Your task to perform on an android device: turn vacation reply on in the gmail app Image 0: 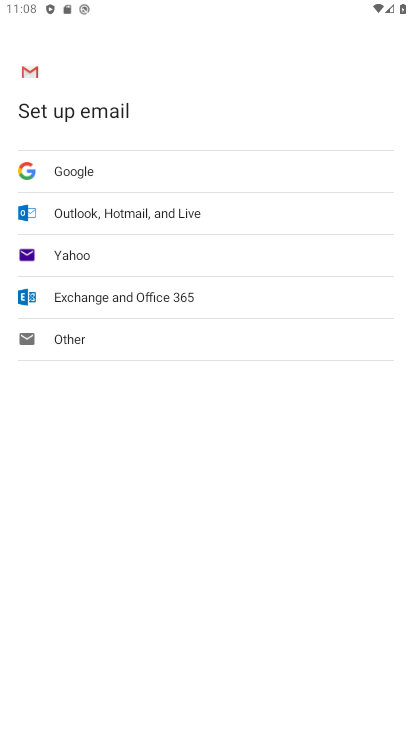
Step 0: press home button
Your task to perform on an android device: turn vacation reply on in the gmail app Image 1: 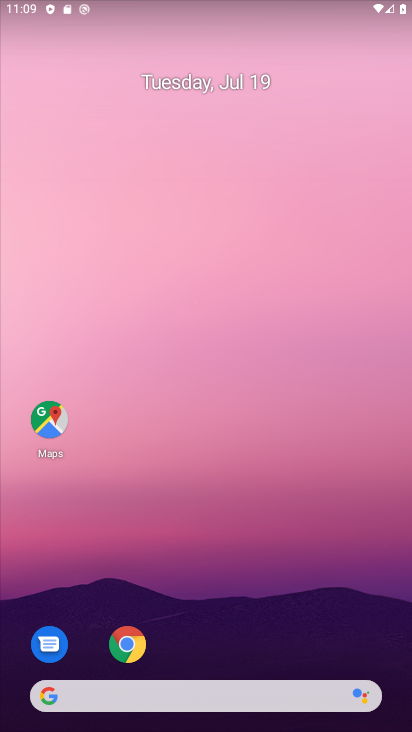
Step 1: drag from (236, 624) to (287, 19)
Your task to perform on an android device: turn vacation reply on in the gmail app Image 2: 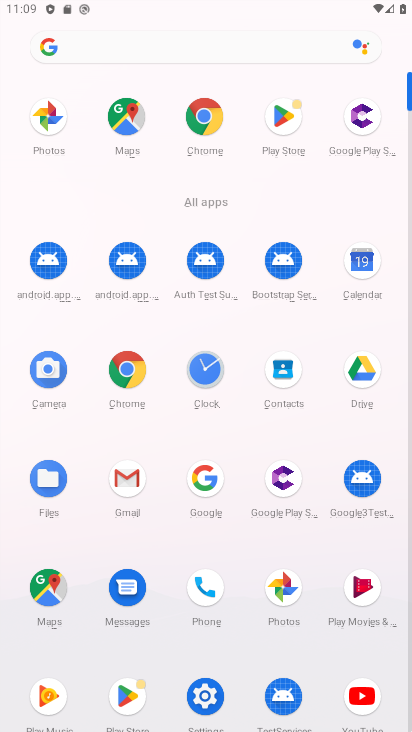
Step 2: click (138, 482)
Your task to perform on an android device: turn vacation reply on in the gmail app Image 3: 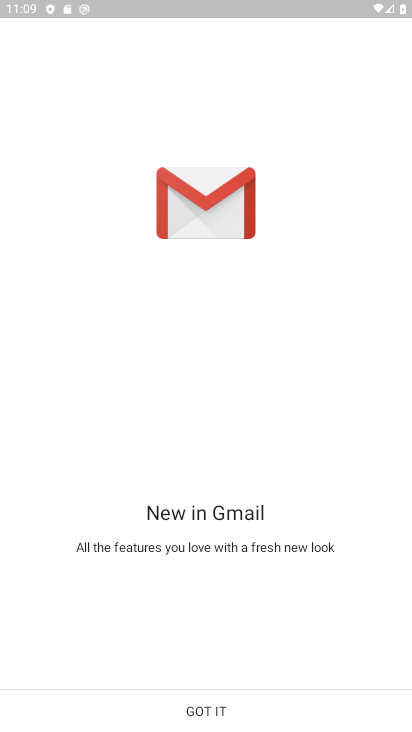
Step 3: click (188, 716)
Your task to perform on an android device: turn vacation reply on in the gmail app Image 4: 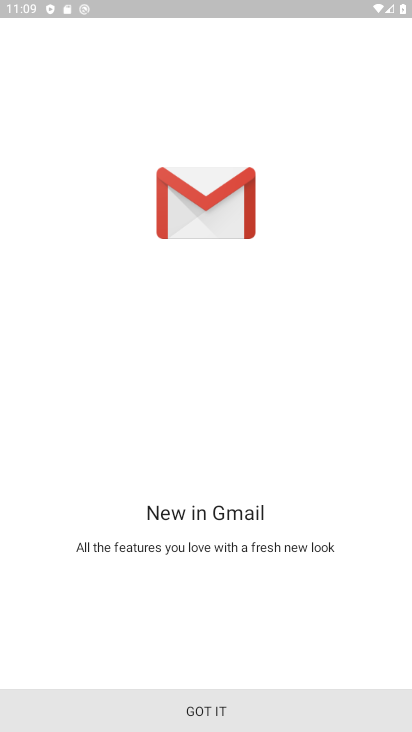
Step 4: click (188, 716)
Your task to perform on an android device: turn vacation reply on in the gmail app Image 5: 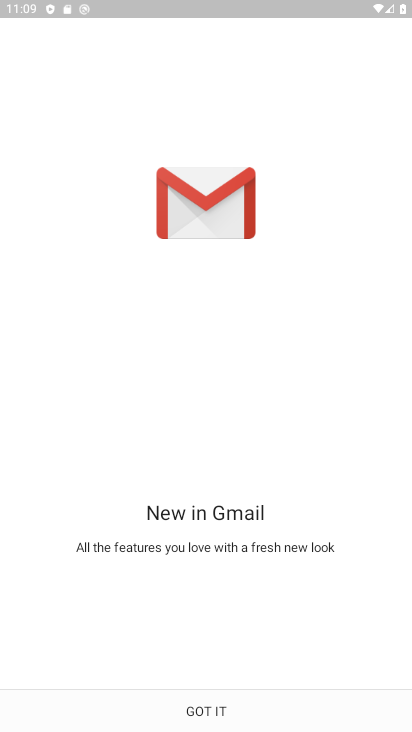
Step 5: click (188, 716)
Your task to perform on an android device: turn vacation reply on in the gmail app Image 6: 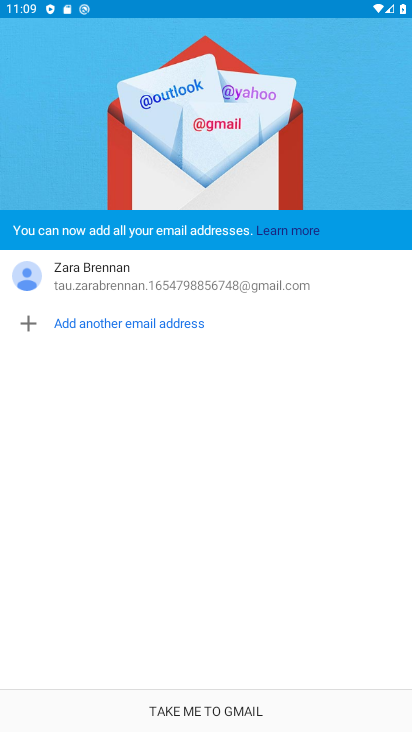
Step 6: click (192, 703)
Your task to perform on an android device: turn vacation reply on in the gmail app Image 7: 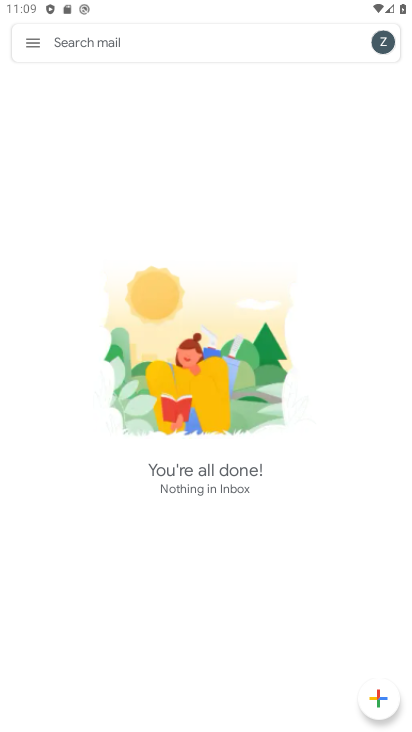
Step 7: click (36, 30)
Your task to perform on an android device: turn vacation reply on in the gmail app Image 8: 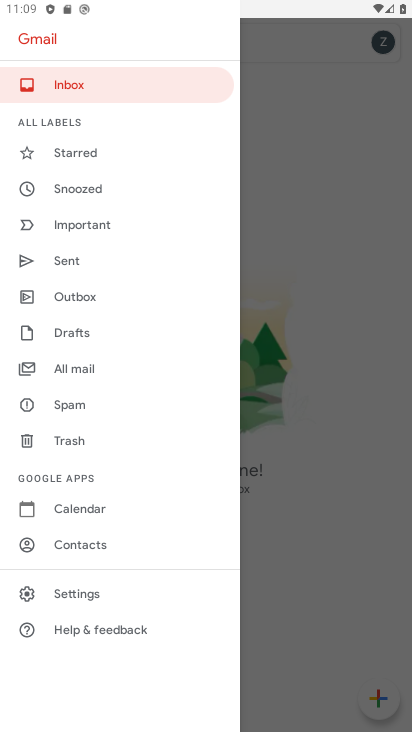
Step 8: click (44, 596)
Your task to perform on an android device: turn vacation reply on in the gmail app Image 9: 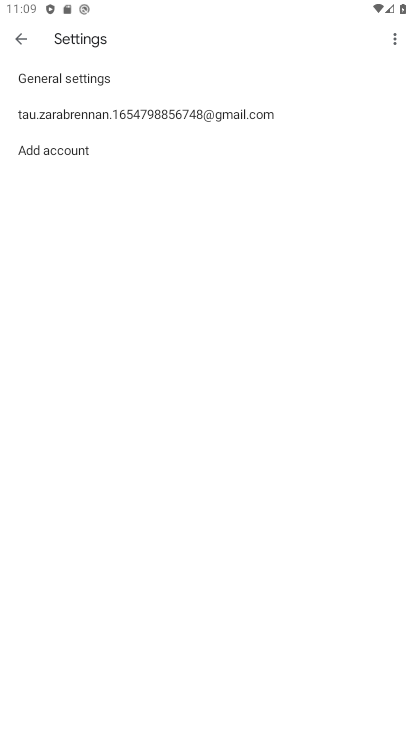
Step 9: click (58, 116)
Your task to perform on an android device: turn vacation reply on in the gmail app Image 10: 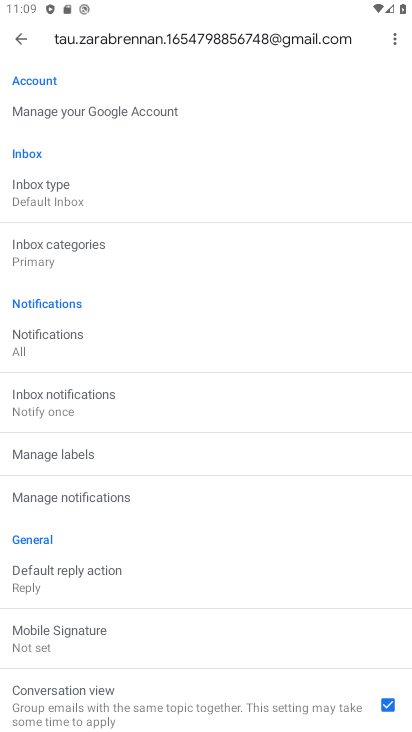
Step 10: drag from (96, 666) to (47, 217)
Your task to perform on an android device: turn vacation reply on in the gmail app Image 11: 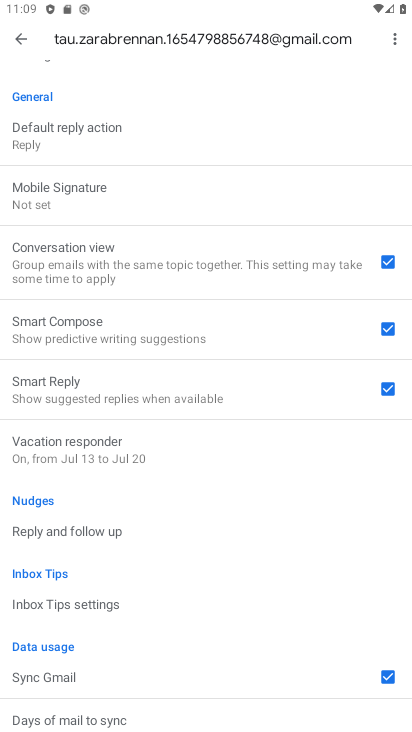
Step 11: click (94, 460)
Your task to perform on an android device: turn vacation reply on in the gmail app Image 12: 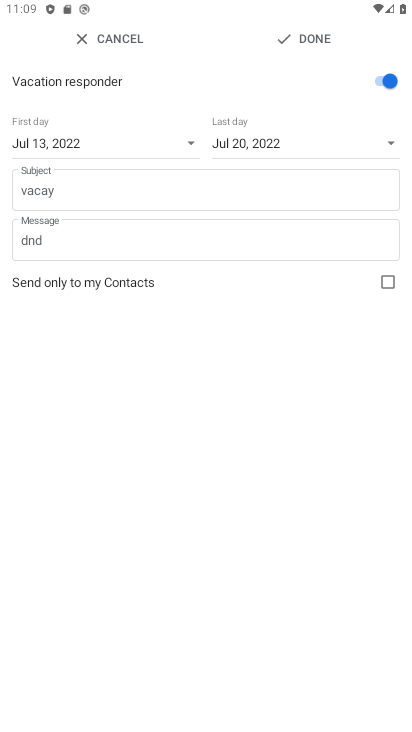
Step 12: click (82, 149)
Your task to perform on an android device: turn vacation reply on in the gmail app Image 13: 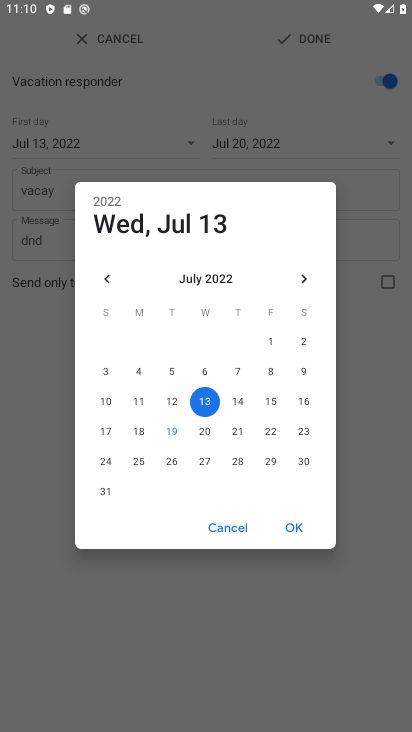
Step 13: click (200, 432)
Your task to perform on an android device: turn vacation reply on in the gmail app Image 14: 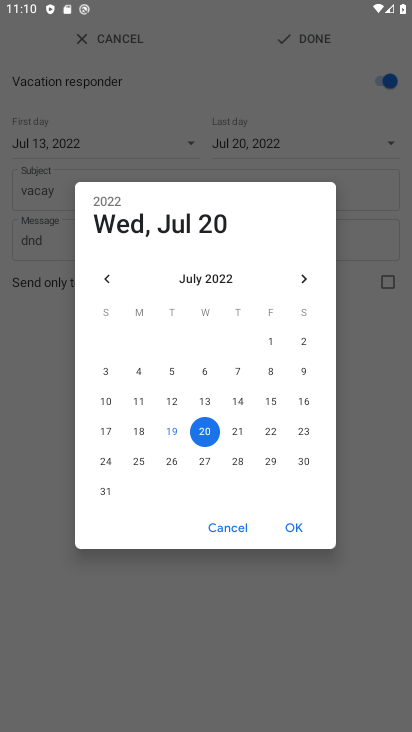
Step 14: click (294, 513)
Your task to perform on an android device: turn vacation reply on in the gmail app Image 15: 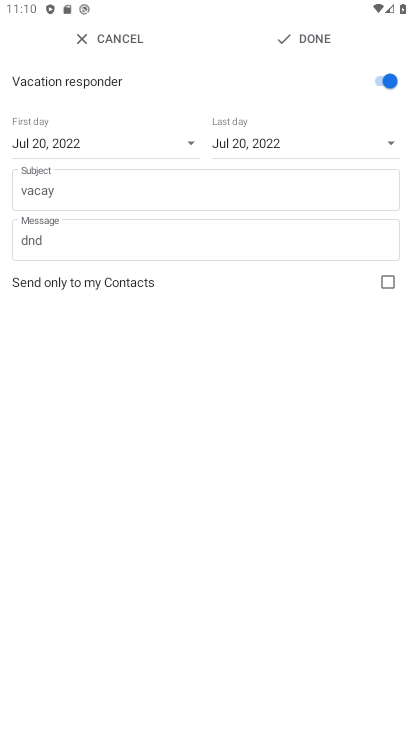
Step 15: click (401, 138)
Your task to perform on an android device: turn vacation reply on in the gmail app Image 16: 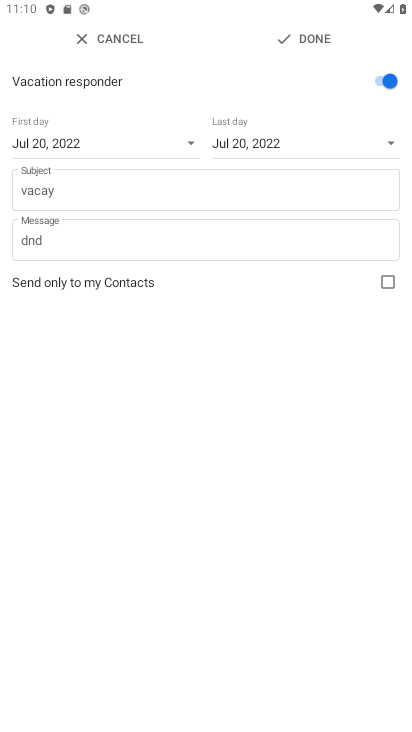
Step 16: click (395, 148)
Your task to perform on an android device: turn vacation reply on in the gmail app Image 17: 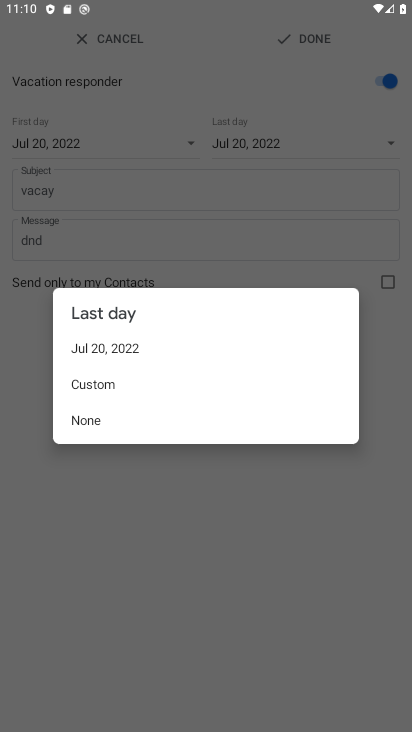
Step 17: click (105, 380)
Your task to perform on an android device: turn vacation reply on in the gmail app Image 18: 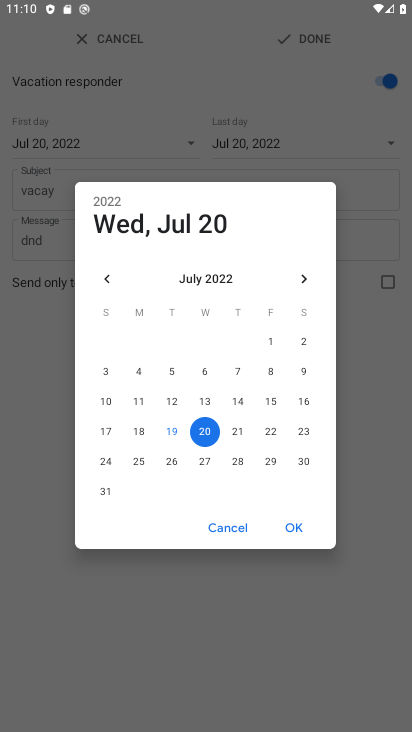
Step 18: drag from (299, 453) to (121, 458)
Your task to perform on an android device: turn vacation reply on in the gmail app Image 19: 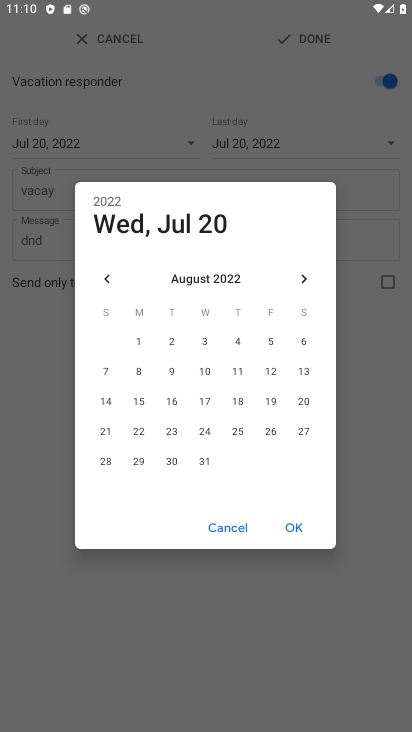
Step 19: click (202, 461)
Your task to perform on an android device: turn vacation reply on in the gmail app Image 20: 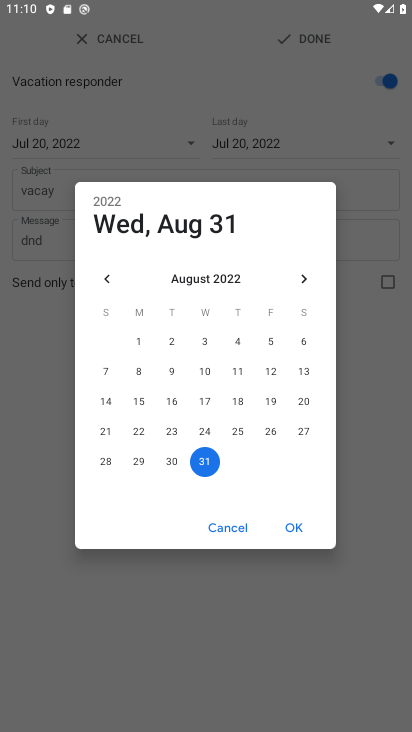
Step 20: click (298, 524)
Your task to perform on an android device: turn vacation reply on in the gmail app Image 21: 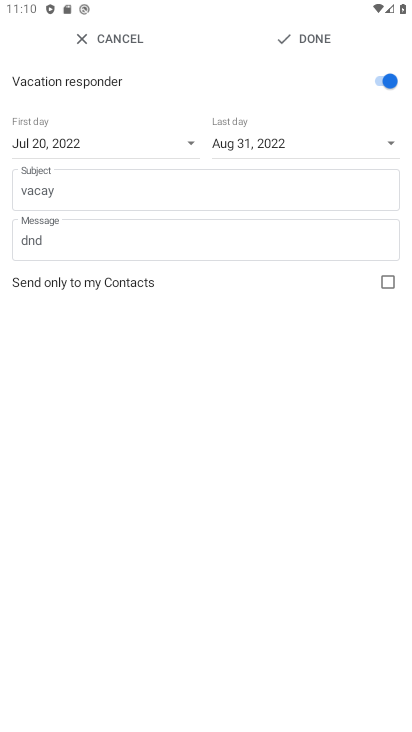
Step 21: click (309, 48)
Your task to perform on an android device: turn vacation reply on in the gmail app Image 22: 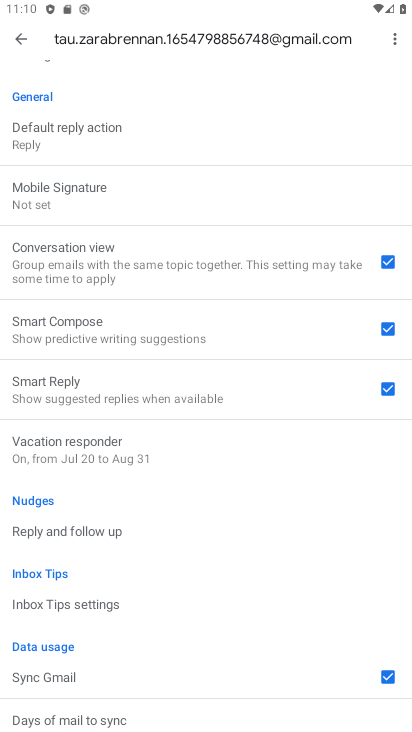
Step 22: task complete